Your task to perform on an android device: What's on my calendar tomorrow? Image 0: 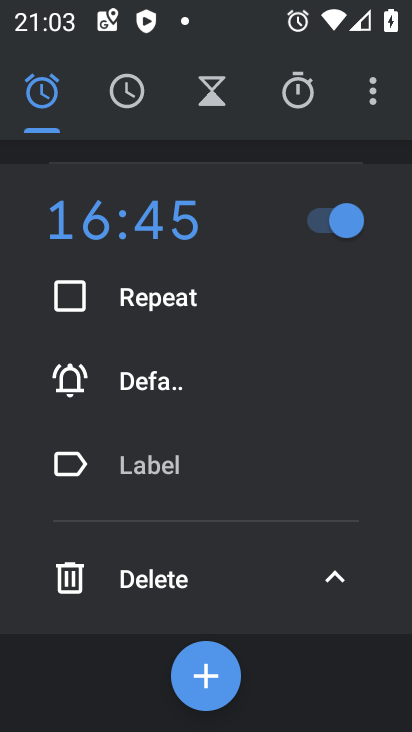
Step 0: press home button
Your task to perform on an android device: What's on my calendar tomorrow? Image 1: 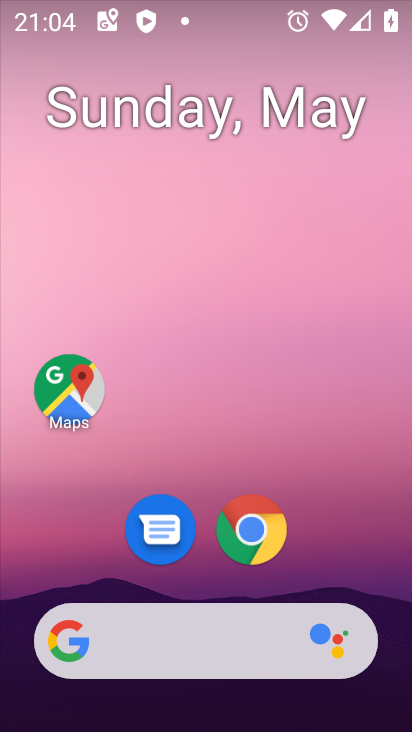
Step 1: drag from (380, 587) to (227, 10)
Your task to perform on an android device: What's on my calendar tomorrow? Image 2: 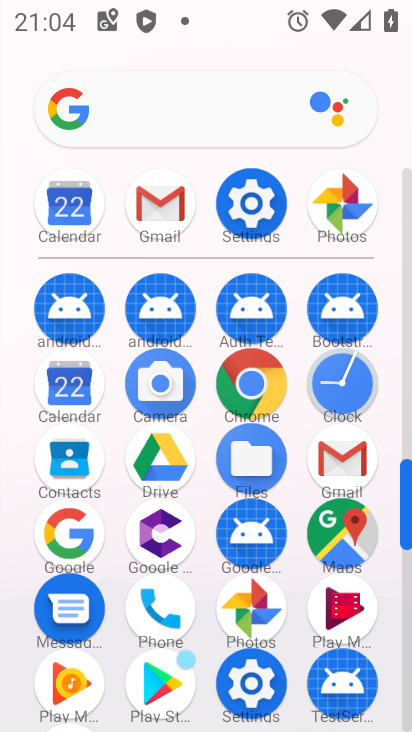
Step 2: click (75, 214)
Your task to perform on an android device: What's on my calendar tomorrow? Image 3: 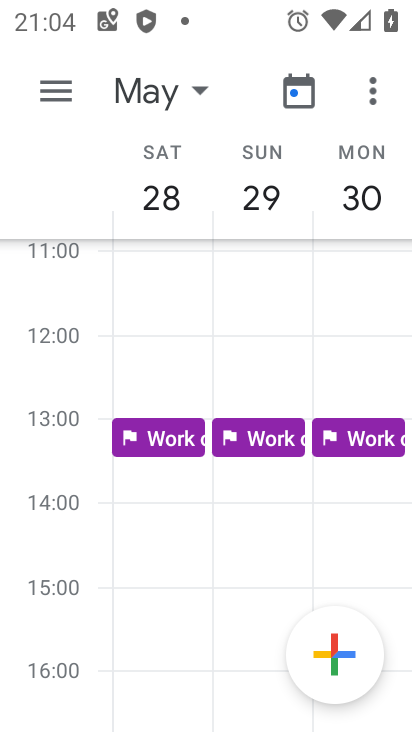
Step 3: click (300, 97)
Your task to perform on an android device: What's on my calendar tomorrow? Image 4: 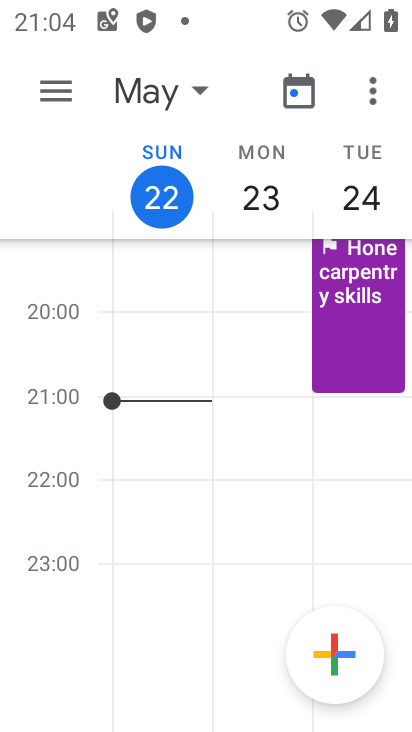
Step 4: click (182, 187)
Your task to perform on an android device: What's on my calendar tomorrow? Image 5: 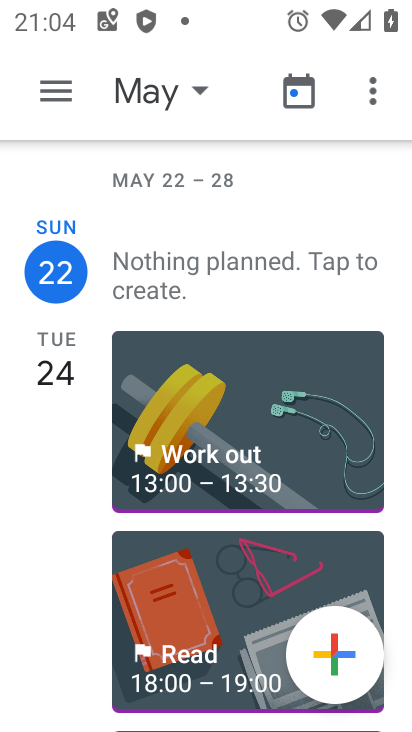
Step 5: click (55, 92)
Your task to perform on an android device: What's on my calendar tomorrow? Image 6: 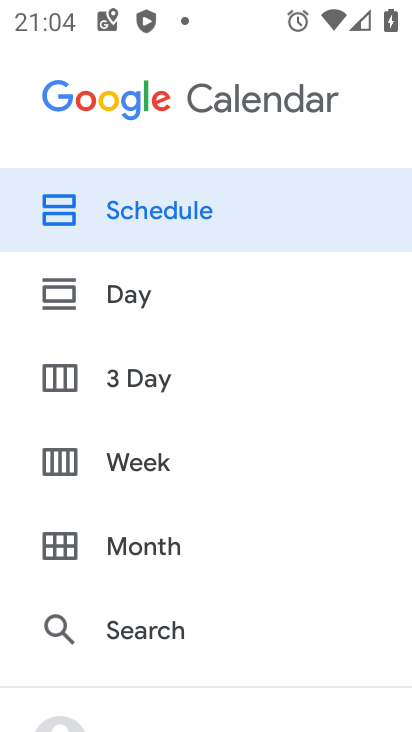
Step 6: click (71, 202)
Your task to perform on an android device: What's on my calendar tomorrow? Image 7: 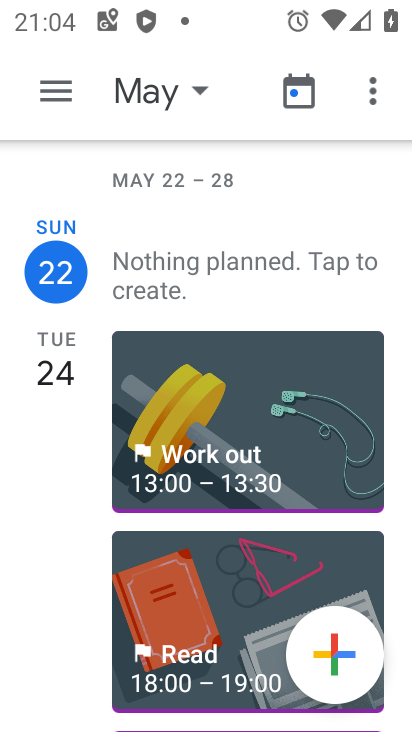
Step 7: click (168, 274)
Your task to perform on an android device: What's on my calendar tomorrow? Image 8: 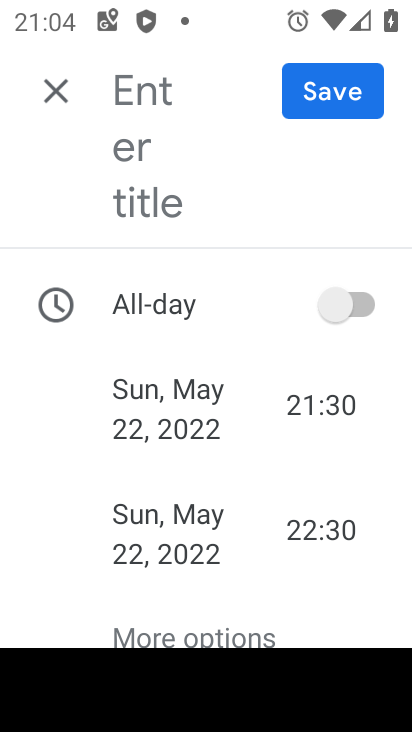
Step 8: task complete